Your task to perform on an android device: remove spam from my inbox in the gmail app Image 0: 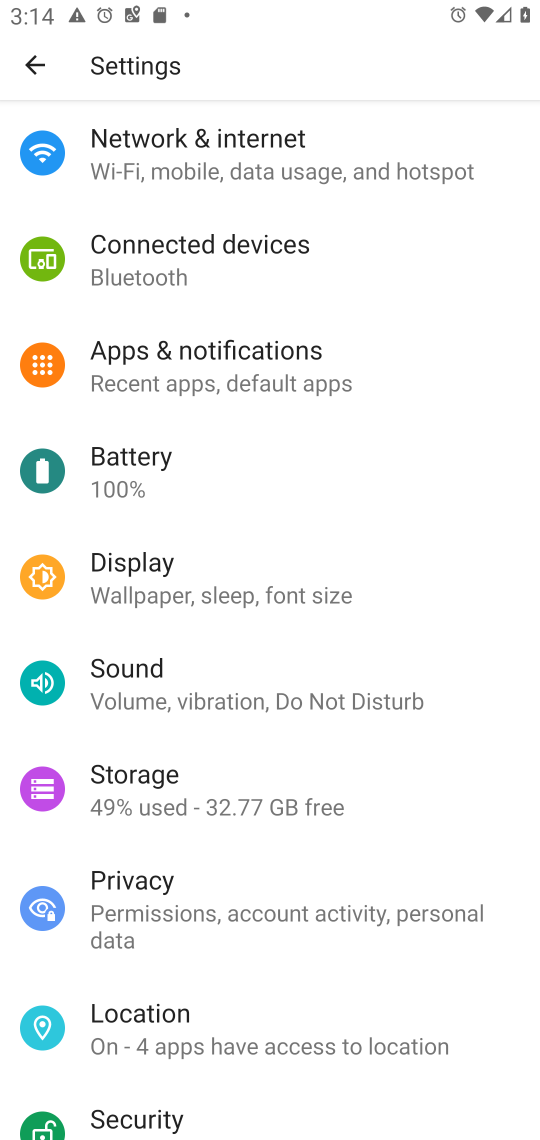
Step 0: press home button
Your task to perform on an android device: remove spam from my inbox in the gmail app Image 1: 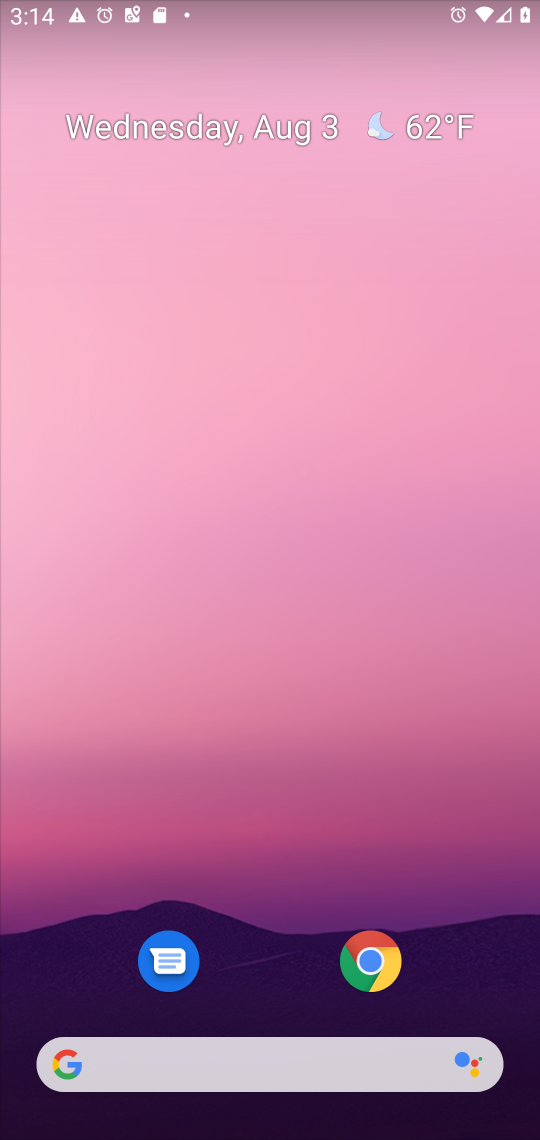
Step 1: drag from (279, 997) to (333, 97)
Your task to perform on an android device: remove spam from my inbox in the gmail app Image 2: 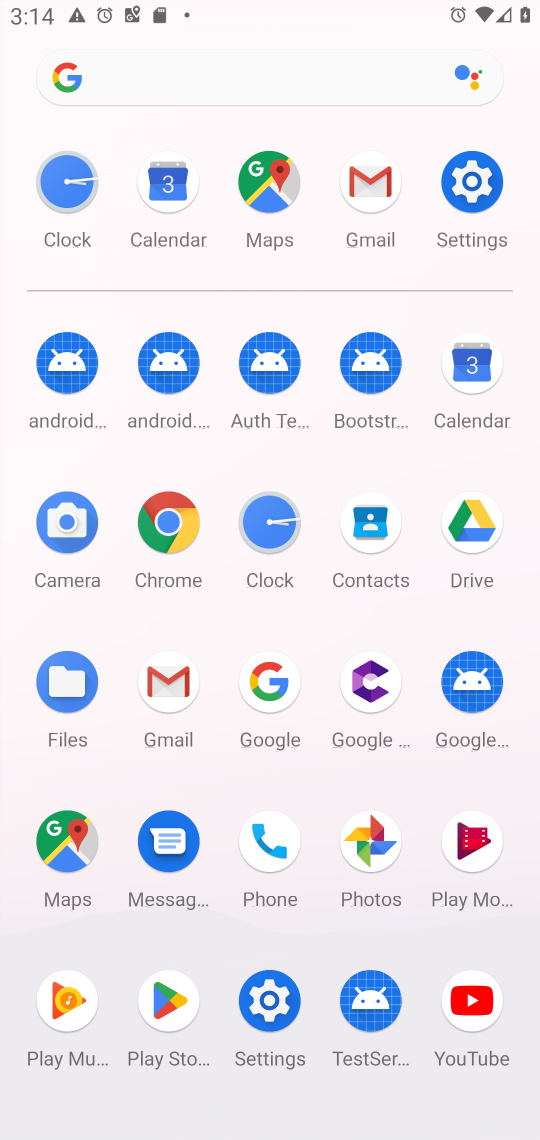
Step 2: click (363, 195)
Your task to perform on an android device: remove spam from my inbox in the gmail app Image 3: 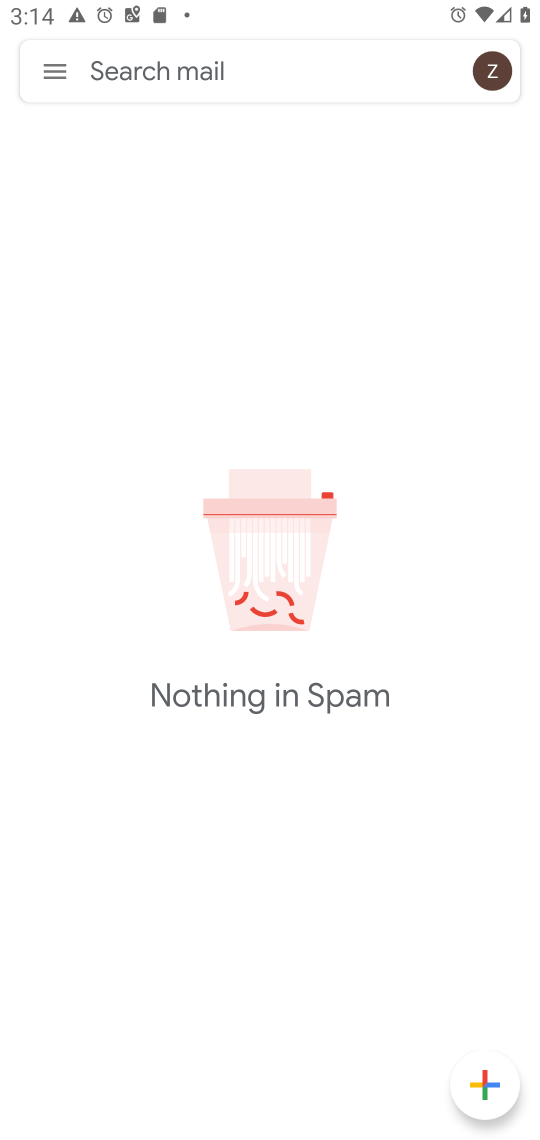
Step 3: task complete